Your task to perform on an android device: open a bookmark in the chrome app Image 0: 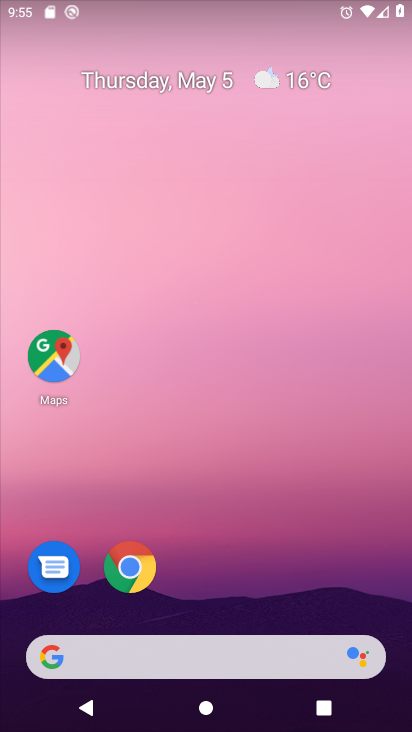
Step 0: drag from (293, 502) to (222, 2)
Your task to perform on an android device: open a bookmark in the chrome app Image 1: 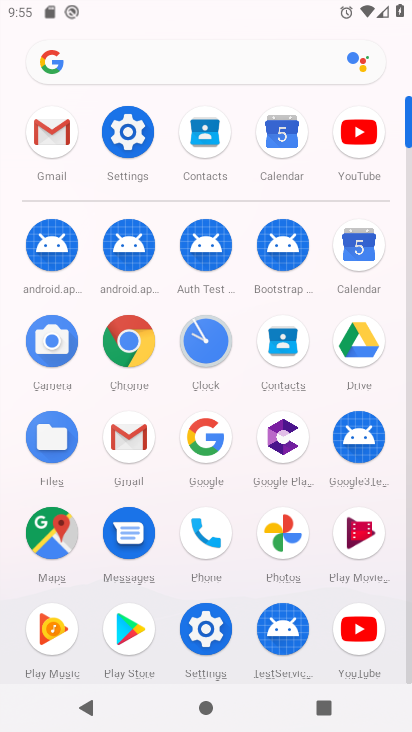
Step 1: click (144, 344)
Your task to perform on an android device: open a bookmark in the chrome app Image 2: 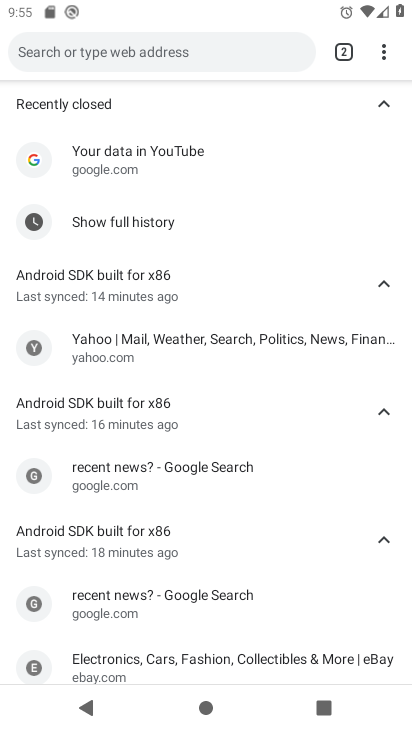
Step 2: drag from (380, 51) to (247, 188)
Your task to perform on an android device: open a bookmark in the chrome app Image 3: 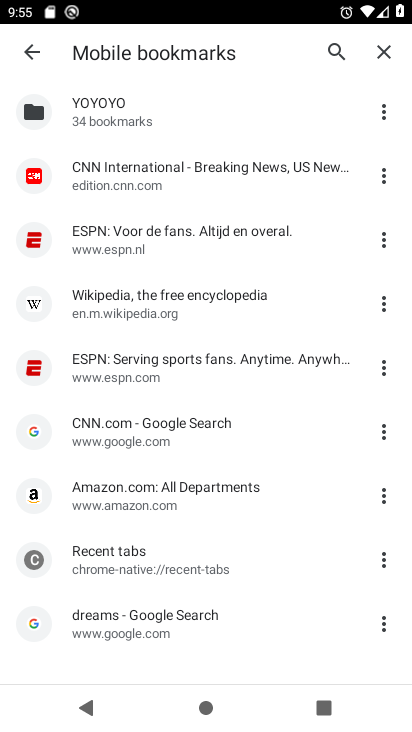
Step 3: click (220, 296)
Your task to perform on an android device: open a bookmark in the chrome app Image 4: 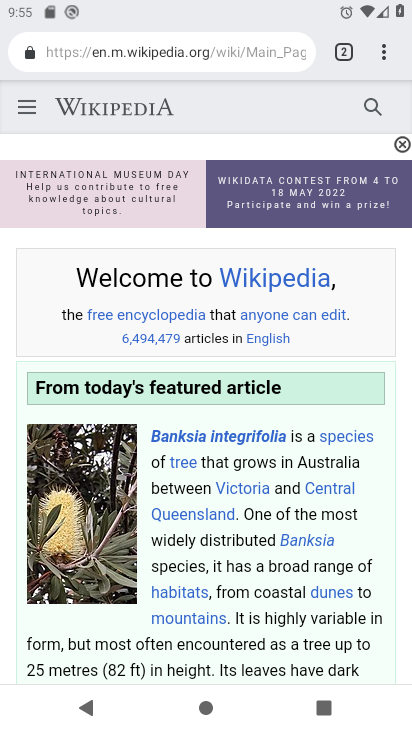
Step 4: task complete